Your task to perform on an android device: Show me popular videos on Youtube Image 0: 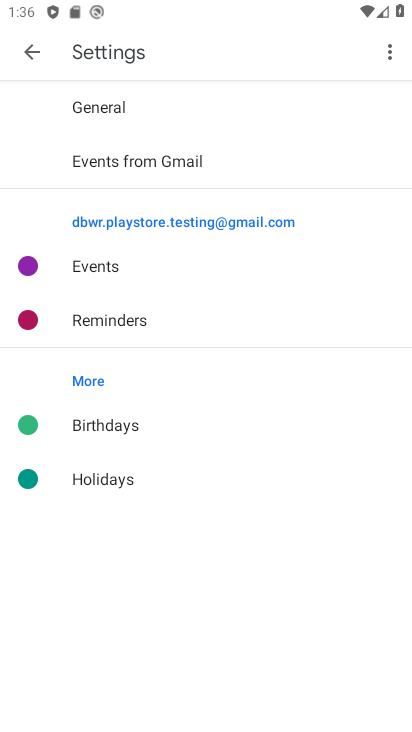
Step 0: press back button
Your task to perform on an android device: Show me popular videos on Youtube Image 1: 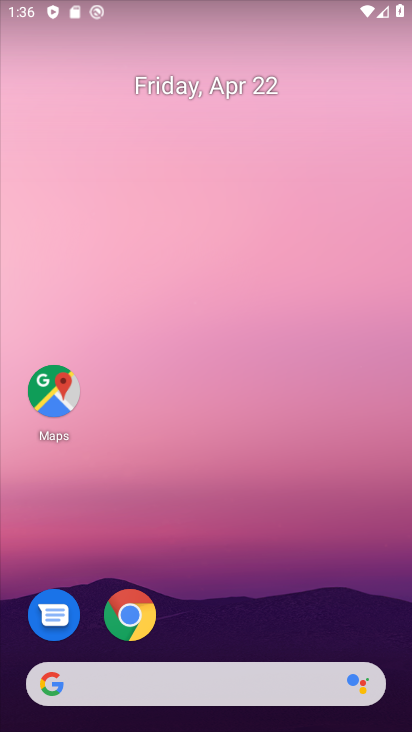
Step 1: click (294, 199)
Your task to perform on an android device: Show me popular videos on Youtube Image 2: 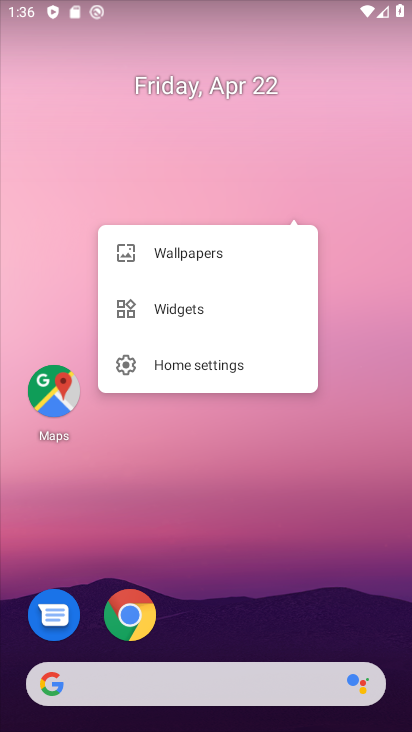
Step 2: drag from (189, 591) to (351, 46)
Your task to perform on an android device: Show me popular videos on Youtube Image 3: 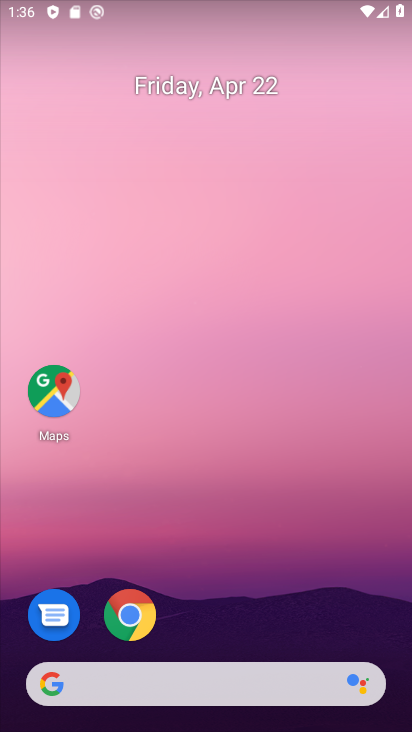
Step 3: drag from (210, 627) to (344, 98)
Your task to perform on an android device: Show me popular videos on Youtube Image 4: 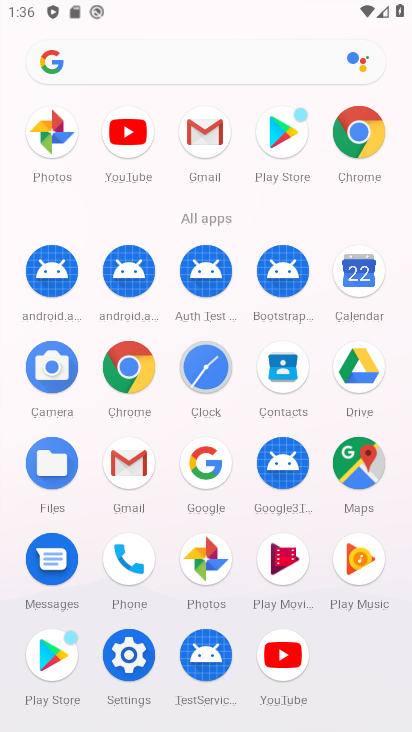
Step 4: drag from (148, 624) to (210, 352)
Your task to perform on an android device: Show me popular videos on Youtube Image 5: 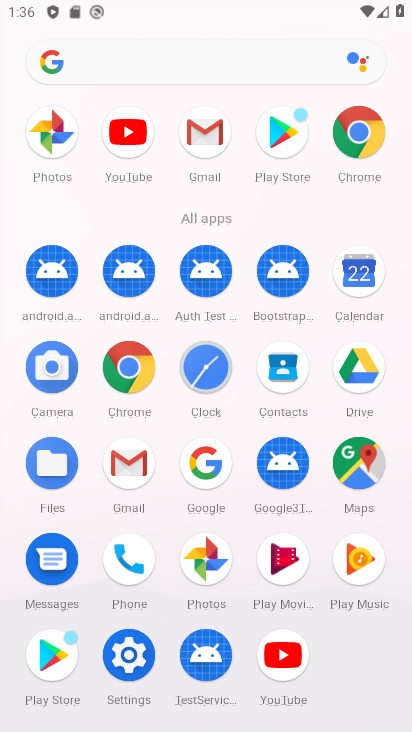
Step 5: click (282, 661)
Your task to perform on an android device: Show me popular videos on Youtube Image 6: 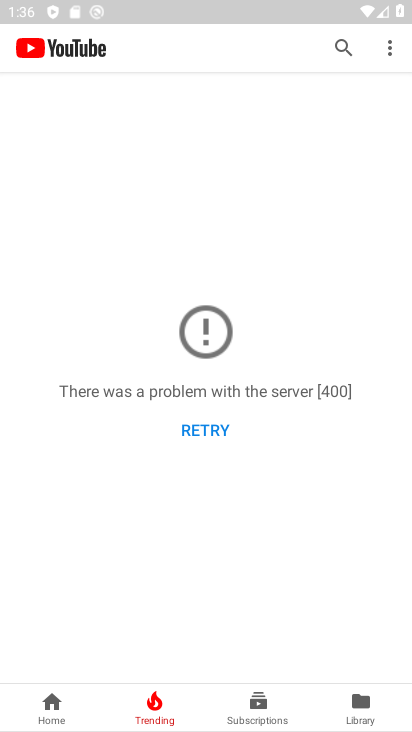
Step 6: click (146, 710)
Your task to perform on an android device: Show me popular videos on Youtube Image 7: 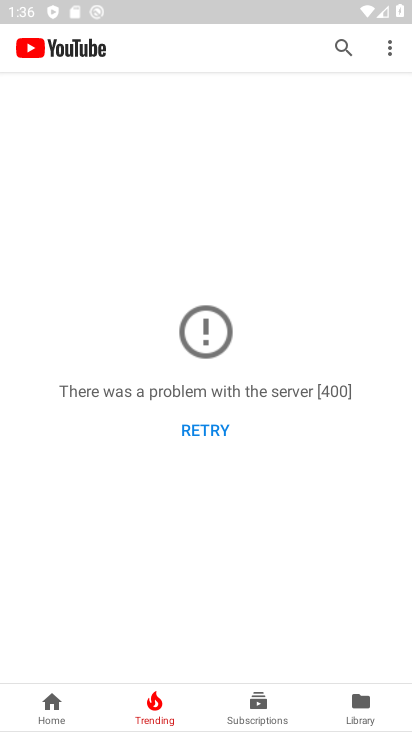
Step 7: task complete